Your task to perform on an android device: turn on location history Image 0: 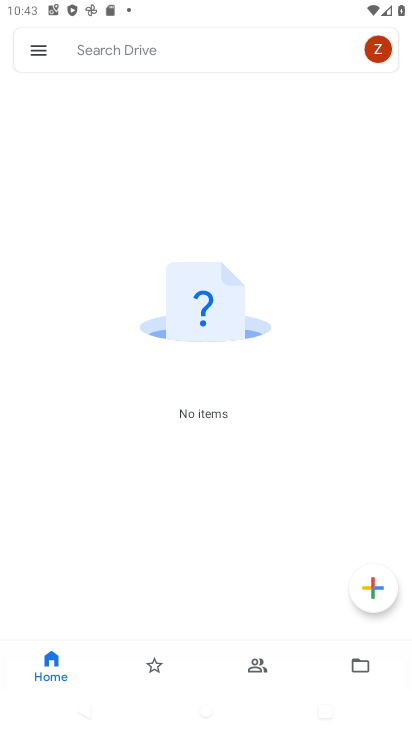
Step 0: press home button
Your task to perform on an android device: turn on location history Image 1: 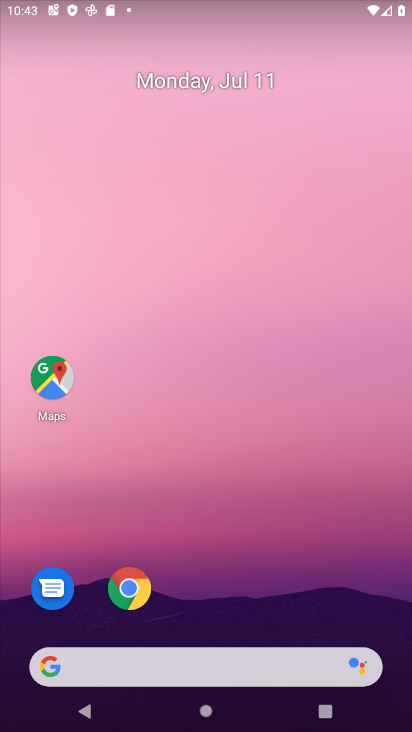
Step 1: click (67, 358)
Your task to perform on an android device: turn on location history Image 2: 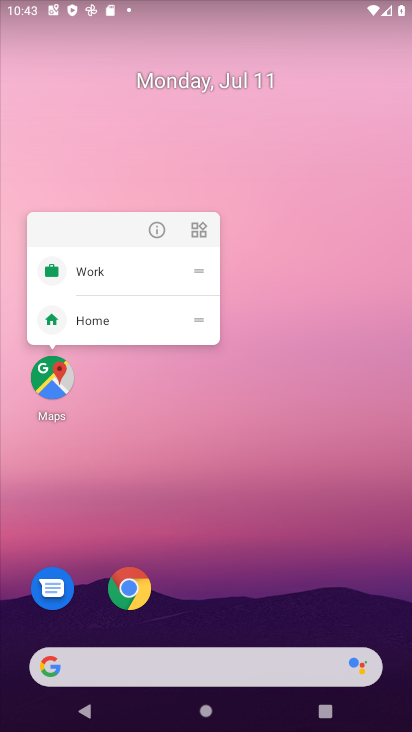
Step 2: click (44, 378)
Your task to perform on an android device: turn on location history Image 3: 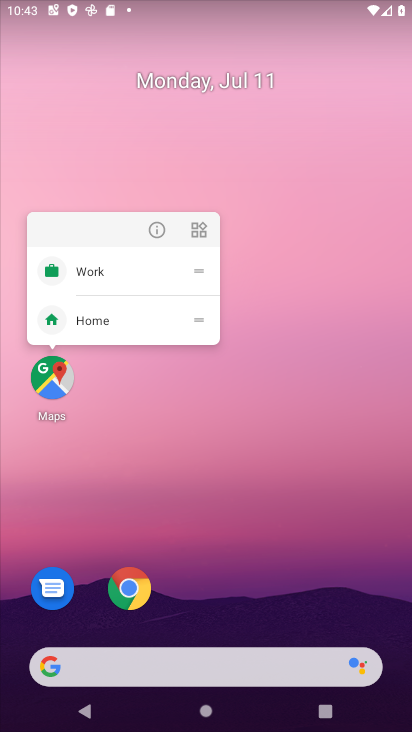
Step 3: click (44, 378)
Your task to perform on an android device: turn on location history Image 4: 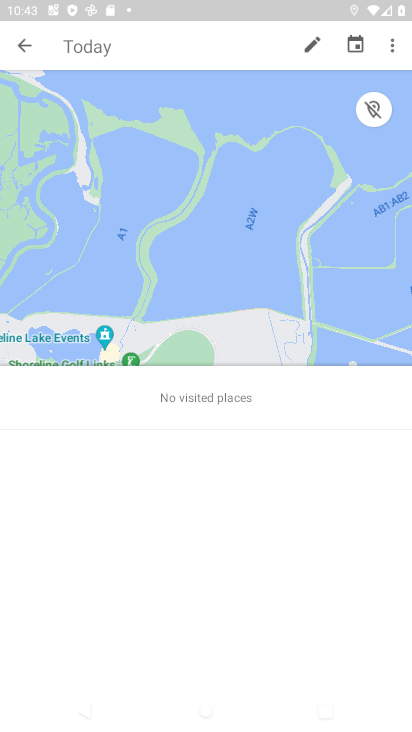
Step 4: click (389, 41)
Your task to perform on an android device: turn on location history Image 5: 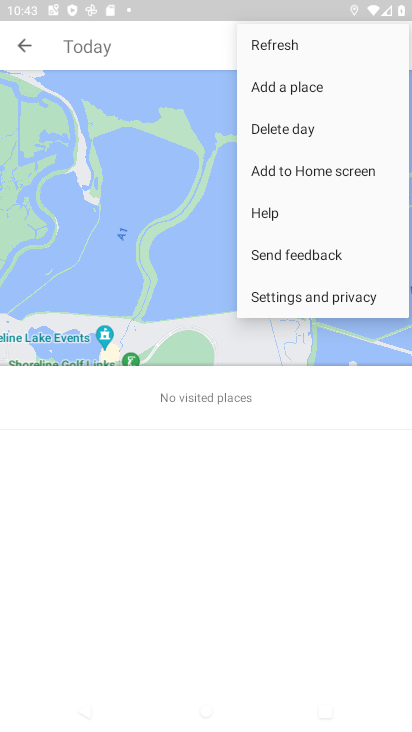
Step 5: click (321, 297)
Your task to perform on an android device: turn on location history Image 6: 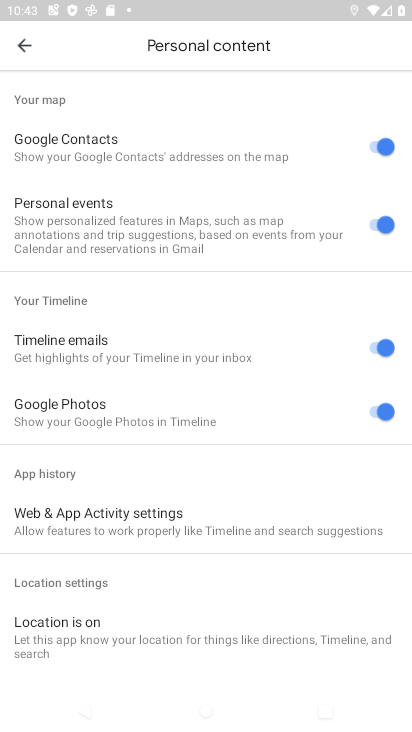
Step 6: drag from (214, 591) to (215, 1)
Your task to perform on an android device: turn on location history Image 7: 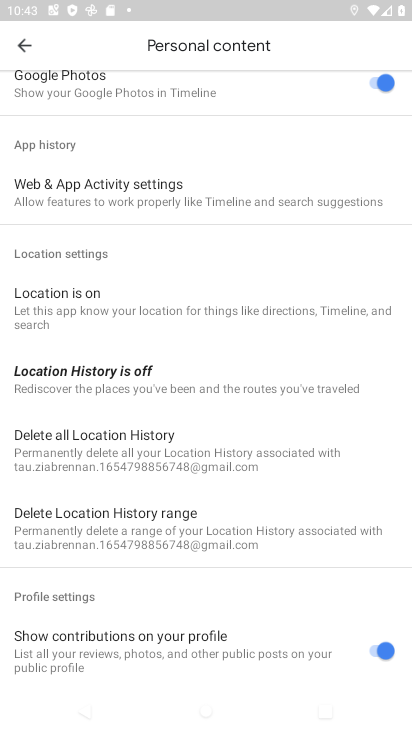
Step 7: click (178, 366)
Your task to perform on an android device: turn on location history Image 8: 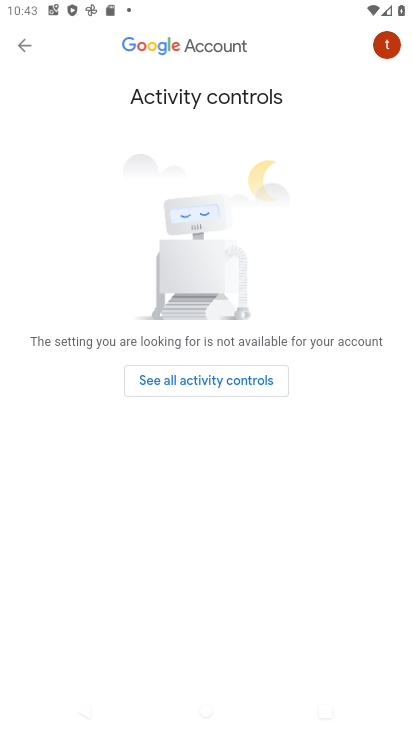
Step 8: click (204, 380)
Your task to perform on an android device: turn on location history Image 9: 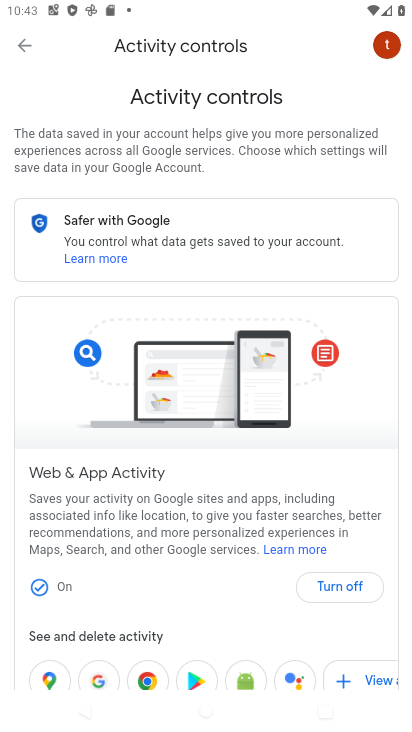
Step 9: task complete